Your task to perform on an android device: What is the news today? Image 0: 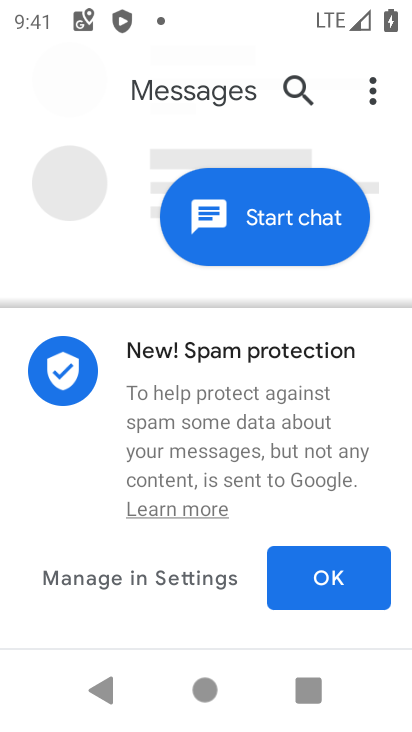
Step 0: press home button
Your task to perform on an android device: What is the news today? Image 1: 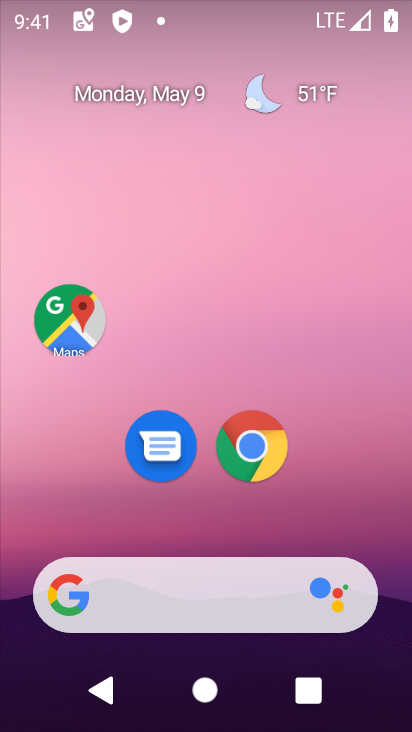
Step 1: click (197, 599)
Your task to perform on an android device: What is the news today? Image 2: 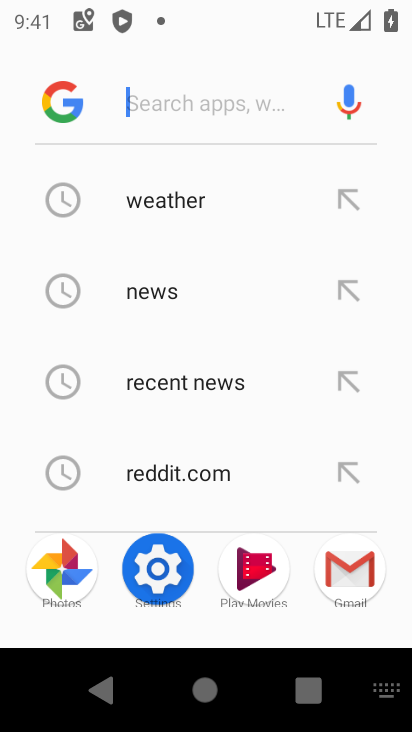
Step 2: type "news today"
Your task to perform on an android device: What is the news today? Image 3: 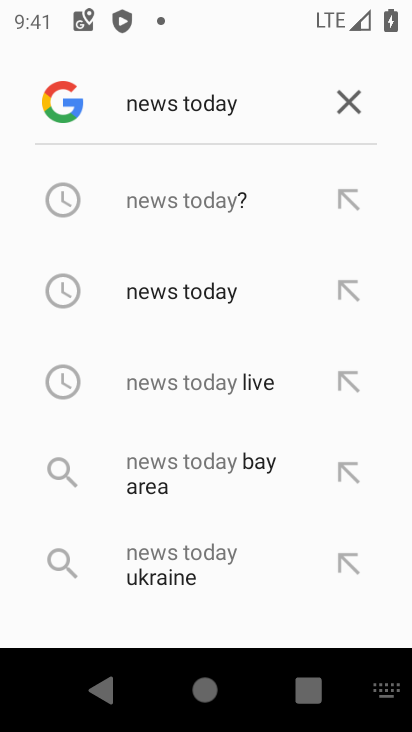
Step 3: click (210, 306)
Your task to perform on an android device: What is the news today? Image 4: 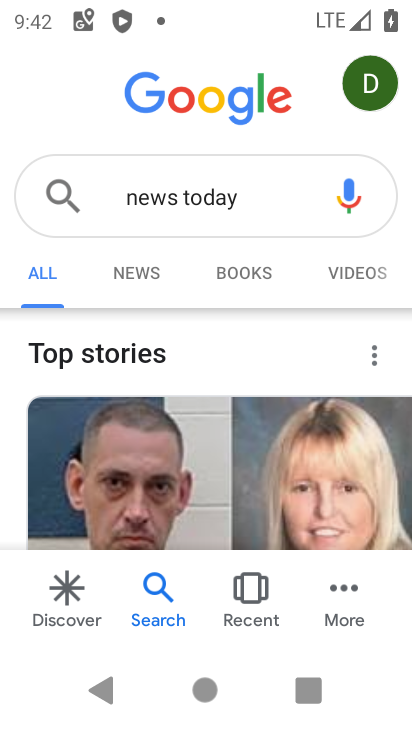
Step 4: click (122, 268)
Your task to perform on an android device: What is the news today? Image 5: 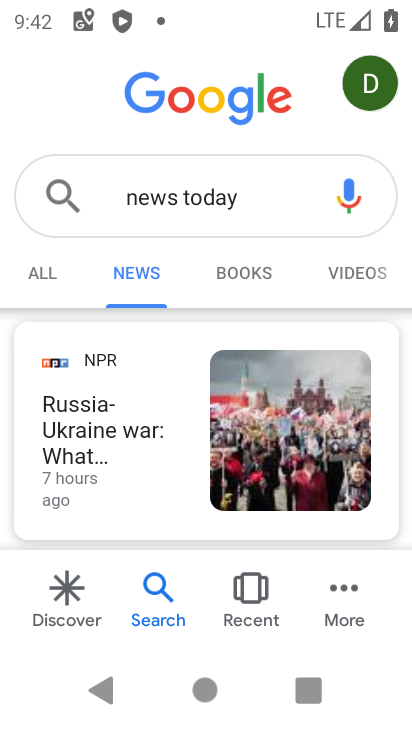
Step 5: task complete